Your task to perform on an android device: Clear the cart on amazon.com. Search for dell xps on amazon.com, select the first entry, add it to the cart, then select checkout. Image 0: 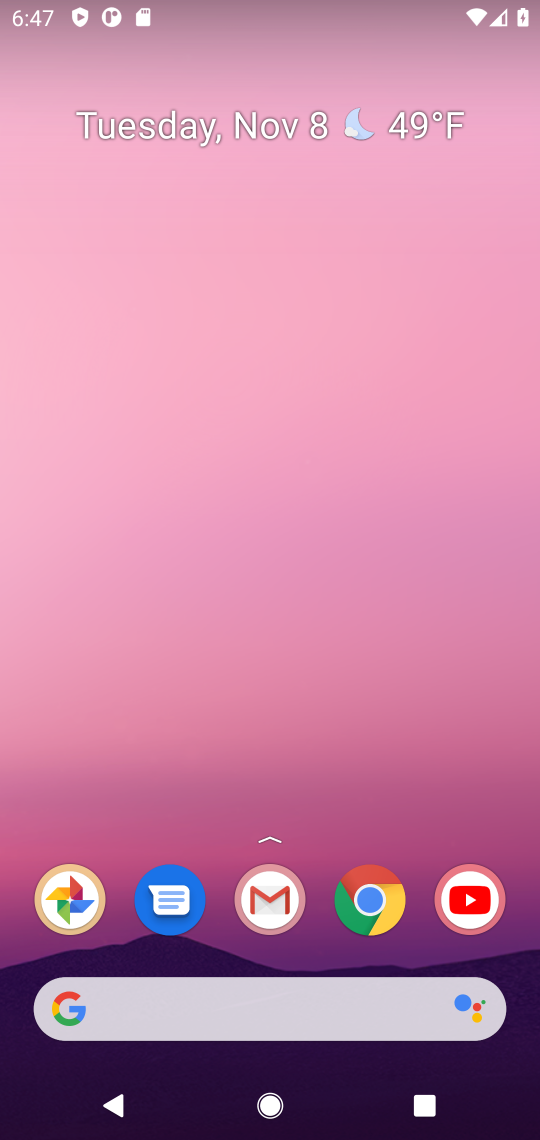
Step 0: drag from (301, 972) to (325, 42)
Your task to perform on an android device: Clear the cart on amazon.com. Search for dell xps on amazon.com, select the first entry, add it to the cart, then select checkout. Image 1: 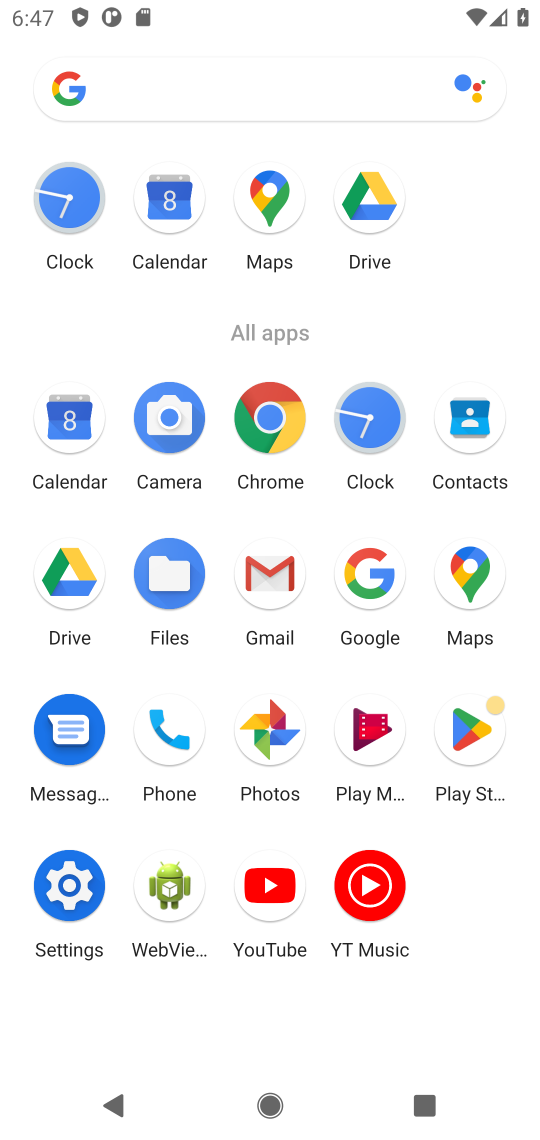
Step 1: click (364, 568)
Your task to perform on an android device: Clear the cart on amazon.com. Search for dell xps on amazon.com, select the first entry, add it to the cart, then select checkout. Image 2: 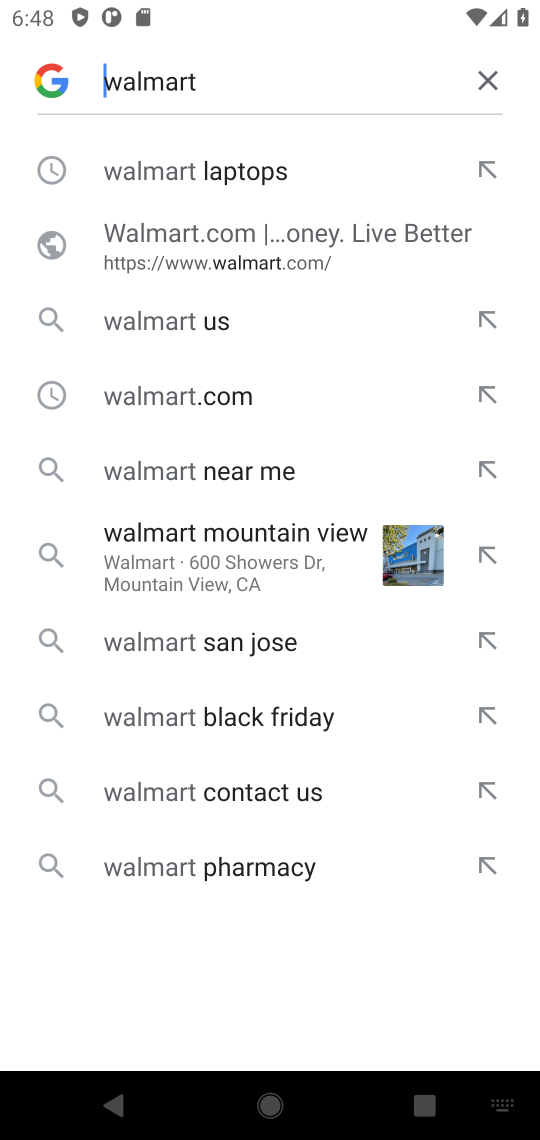
Step 2: click (497, 92)
Your task to perform on an android device: Clear the cart on amazon.com. Search for dell xps on amazon.com, select the first entry, add it to the cart, then select checkout. Image 3: 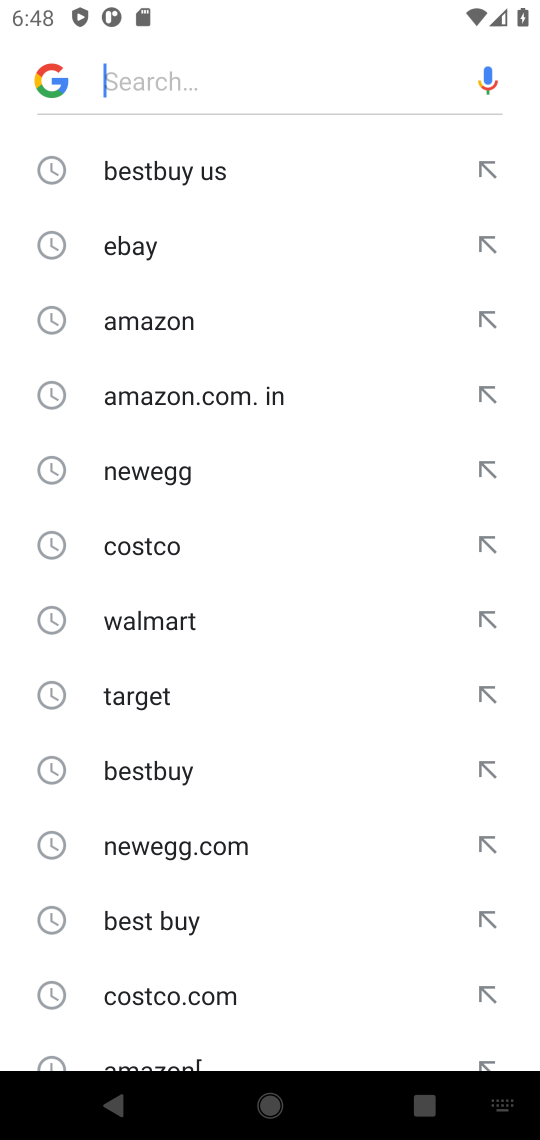
Step 3: click (148, 326)
Your task to perform on an android device: Clear the cart on amazon.com. Search for dell xps on amazon.com, select the first entry, add it to the cart, then select checkout. Image 4: 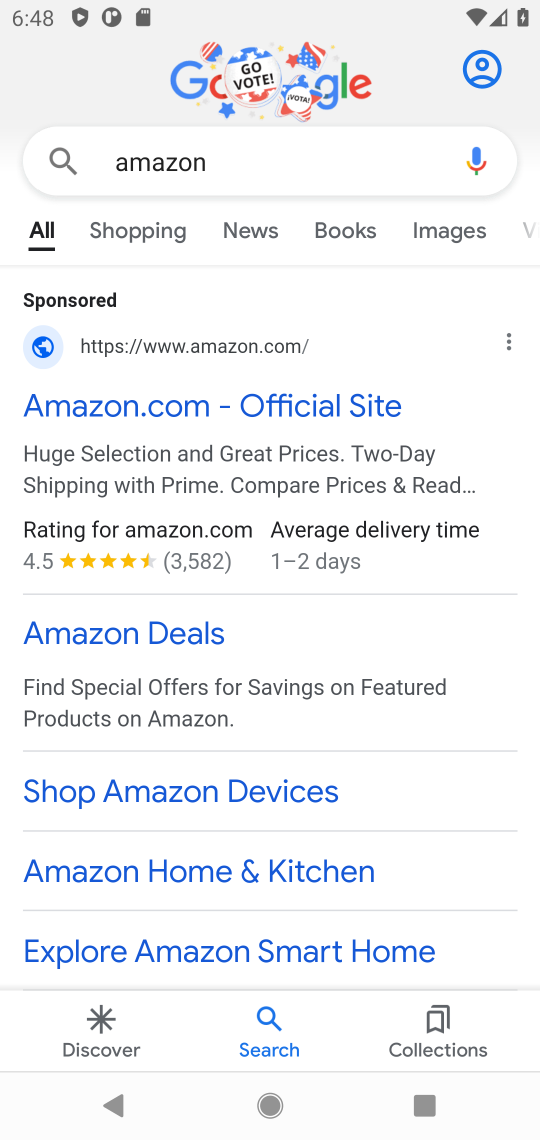
Step 4: drag from (145, 767) to (203, 263)
Your task to perform on an android device: Clear the cart on amazon.com. Search for dell xps on amazon.com, select the first entry, add it to the cart, then select checkout. Image 5: 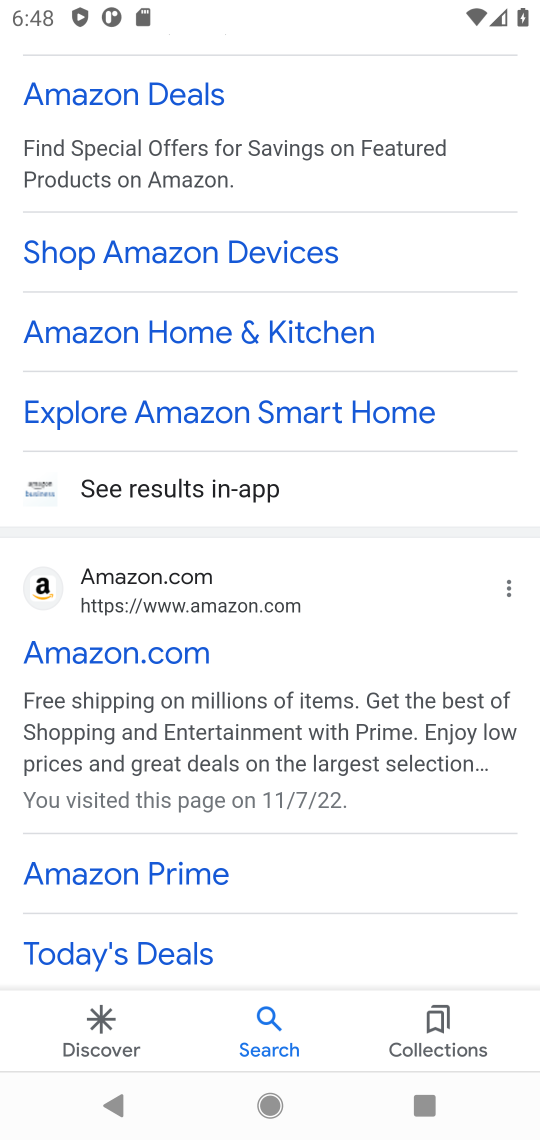
Step 5: drag from (160, 897) to (166, 677)
Your task to perform on an android device: Clear the cart on amazon.com. Search for dell xps on amazon.com, select the first entry, add it to the cart, then select checkout. Image 6: 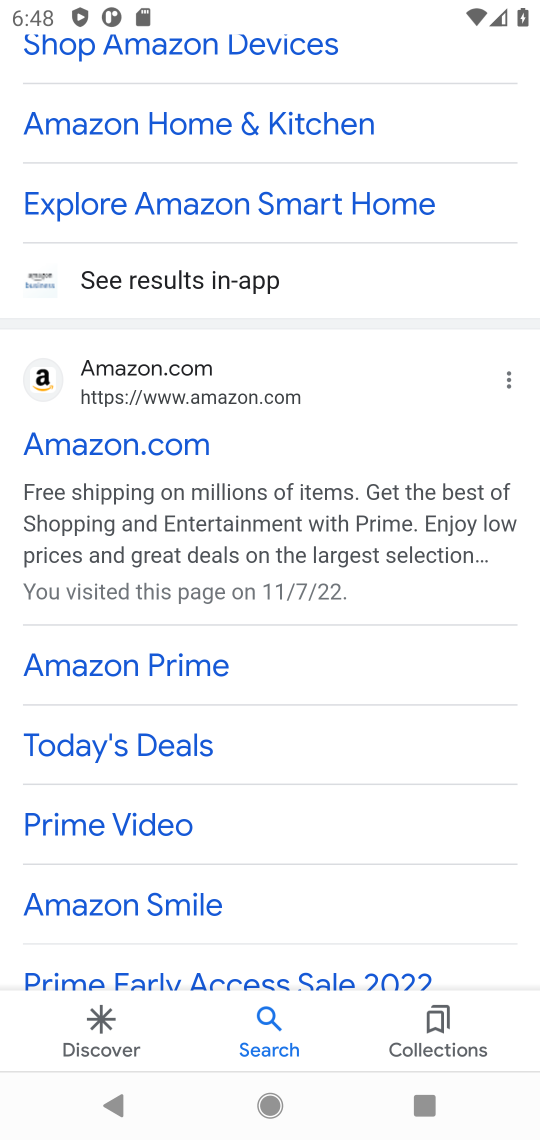
Step 6: click (42, 352)
Your task to perform on an android device: Clear the cart on amazon.com. Search for dell xps on amazon.com, select the first entry, add it to the cart, then select checkout. Image 7: 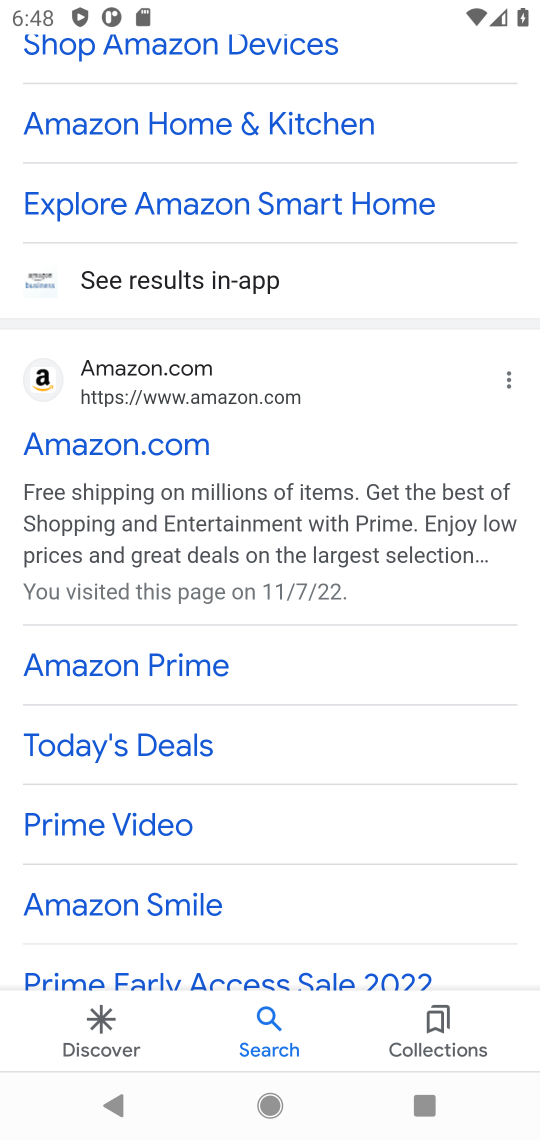
Step 7: click (42, 371)
Your task to perform on an android device: Clear the cart on amazon.com. Search for dell xps on amazon.com, select the first entry, add it to the cart, then select checkout. Image 8: 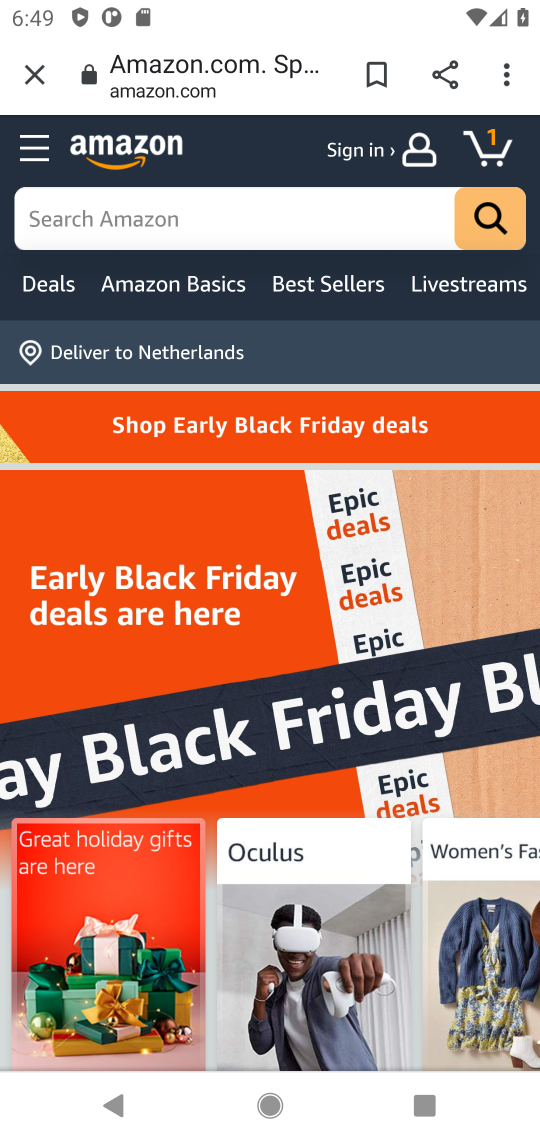
Step 8: click (220, 210)
Your task to perform on an android device: Clear the cart on amazon.com. Search for dell xps on amazon.com, select the first entry, add it to the cart, then select checkout. Image 9: 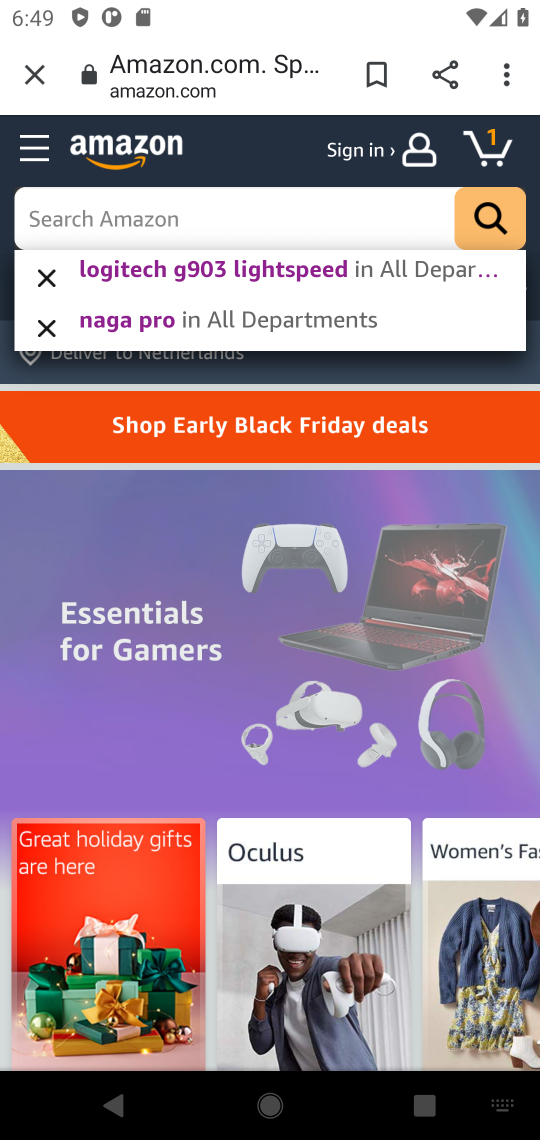
Step 9: click (198, 203)
Your task to perform on an android device: Clear the cart on amazon.com. Search for dell xps on amazon.com, select the first entry, add it to the cart, then select checkout. Image 10: 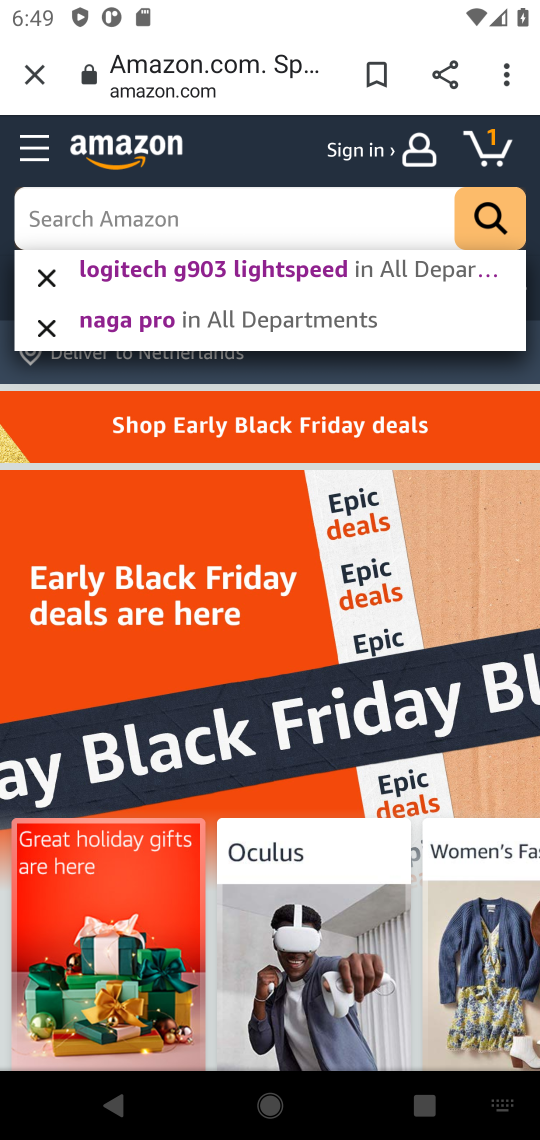
Step 10: type "dell xps "
Your task to perform on an android device: Clear the cart on amazon.com. Search for dell xps on amazon.com, select the first entry, add it to the cart, then select checkout. Image 11: 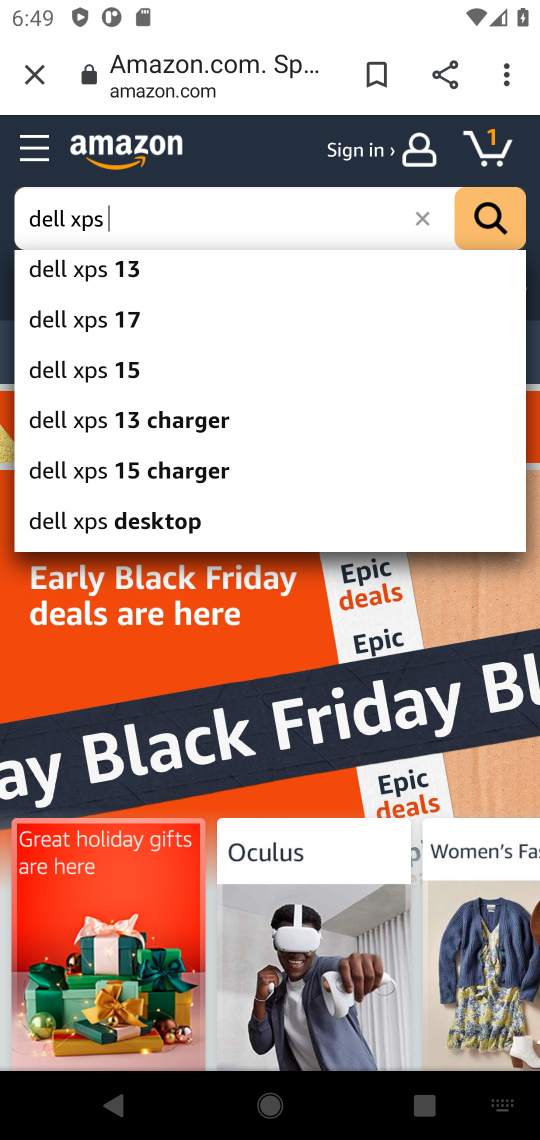
Step 11: click (41, 269)
Your task to perform on an android device: Clear the cart on amazon.com. Search for dell xps on amazon.com, select the first entry, add it to the cart, then select checkout. Image 12: 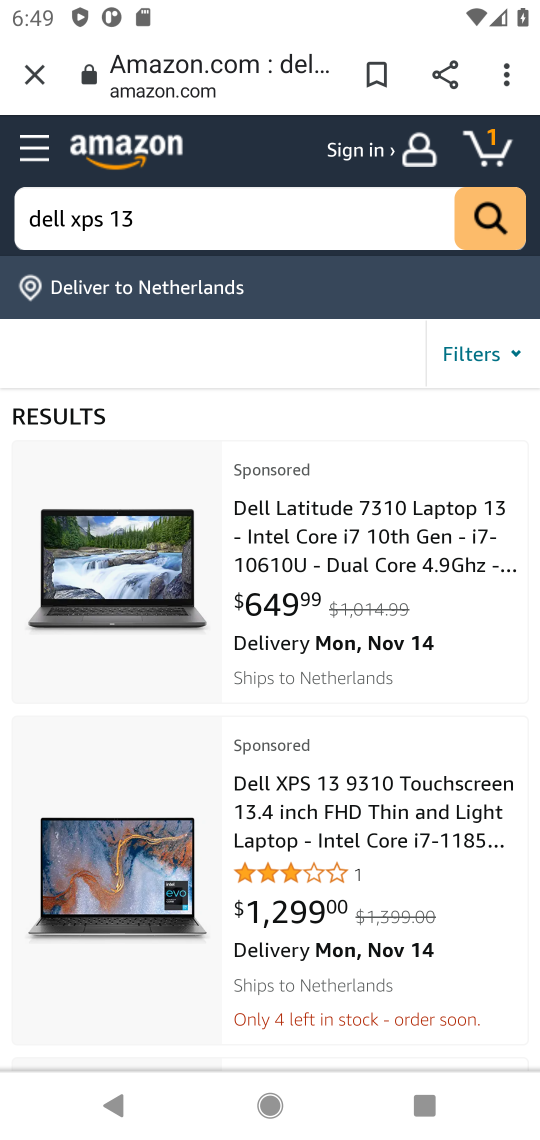
Step 12: click (359, 547)
Your task to perform on an android device: Clear the cart on amazon.com. Search for dell xps on amazon.com, select the first entry, add it to the cart, then select checkout. Image 13: 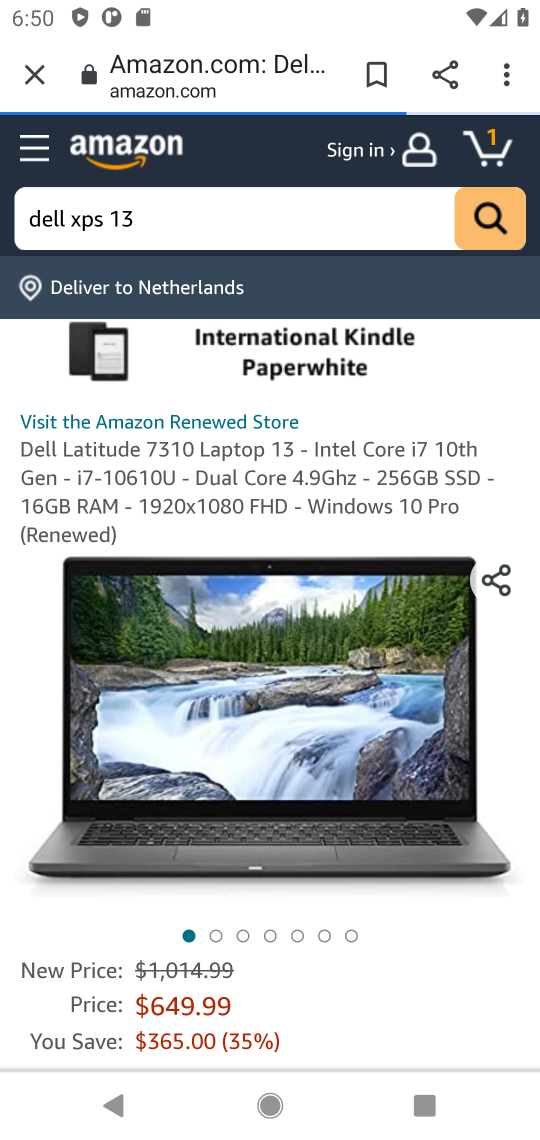
Step 13: press back button
Your task to perform on an android device: Clear the cart on amazon.com. Search for dell xps on amazon.com, select the first entry, add it to the cart, then select checkout. Image 14: 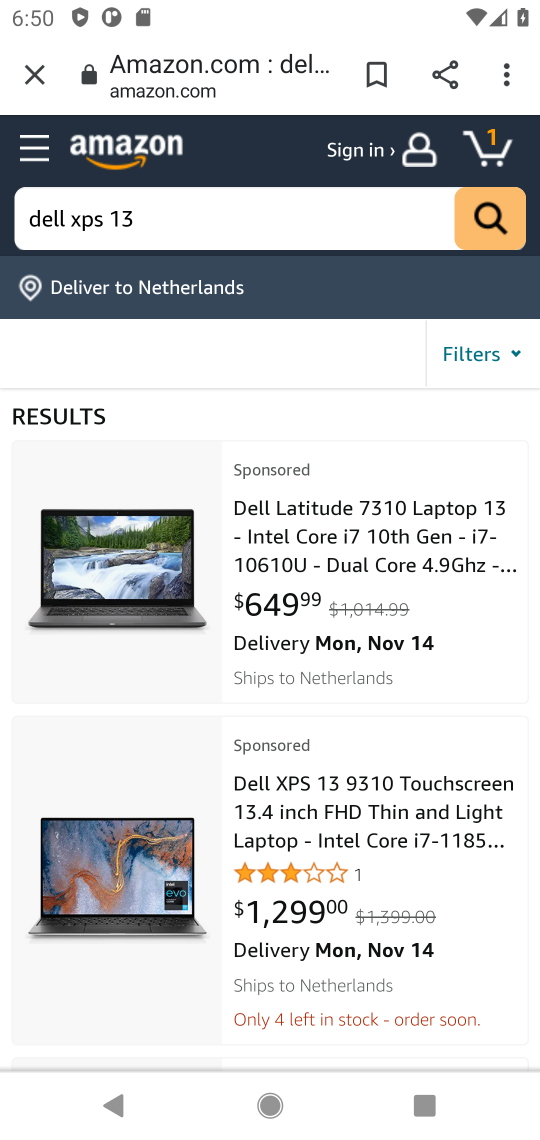
Step 14: click (282, 867)
Your task to perform on an android device: Clear the cart on amazon.com. Search for dell xps on amazon.com, select the first entry, add it to the cart, then select checkout. Image 15: 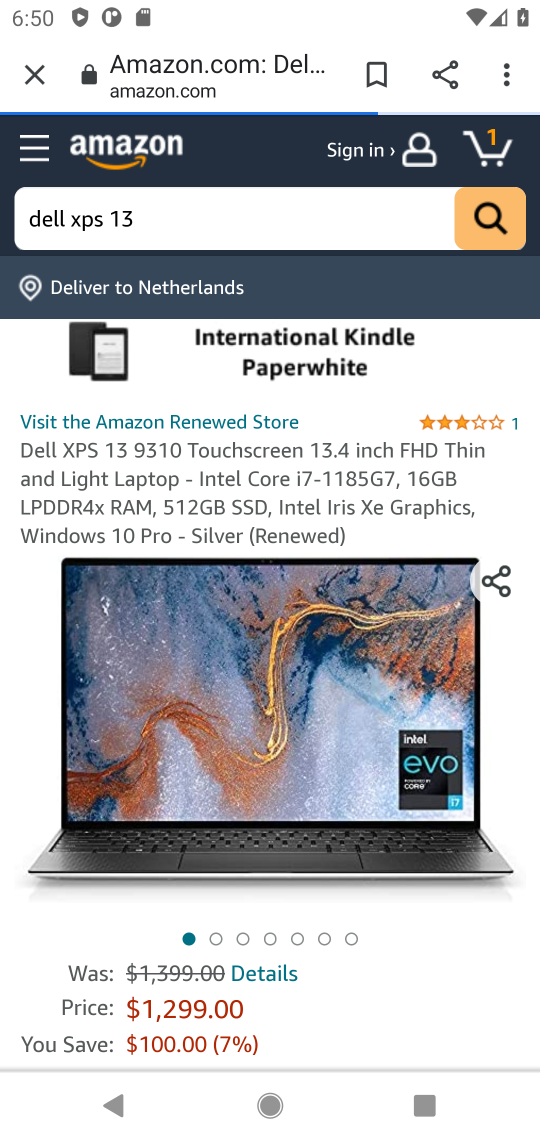
Step 15: drag from (315, 985) to (379, 282)
Your task to perform on an android device: Clear the cart on amazon.com. Search for dell xps on amazon.com, select the first entry, add it to the cart, then select checkout. Image 16: 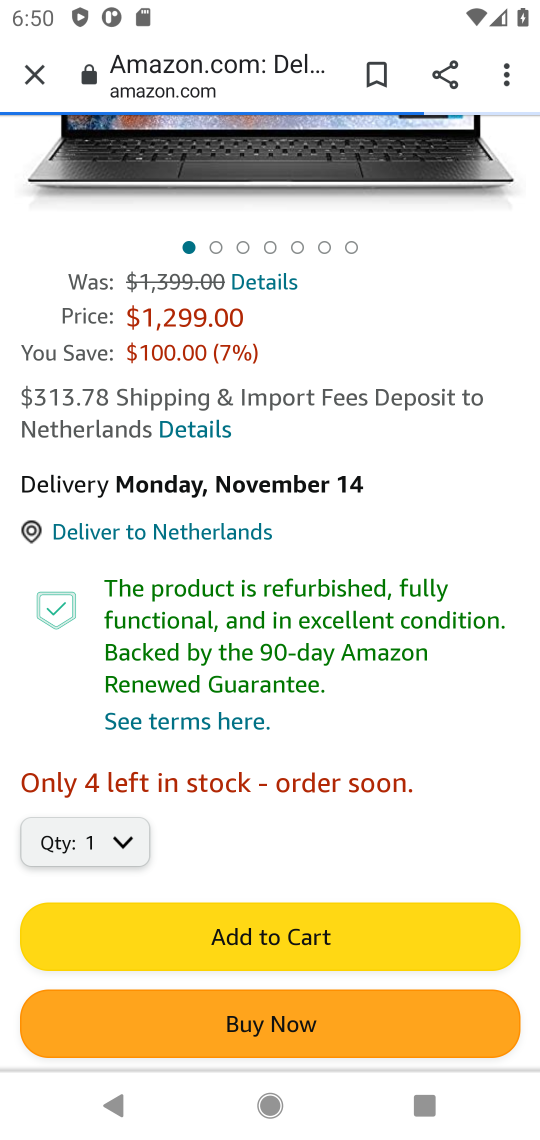
Step 16: drag from (293, 903) to (329, 510)
Your task to perform on an android device: Clear the cart on amazon.com. Search for dell xps on amazon.com, select the first entry, add it to the cart, then select checkout. Image 17: 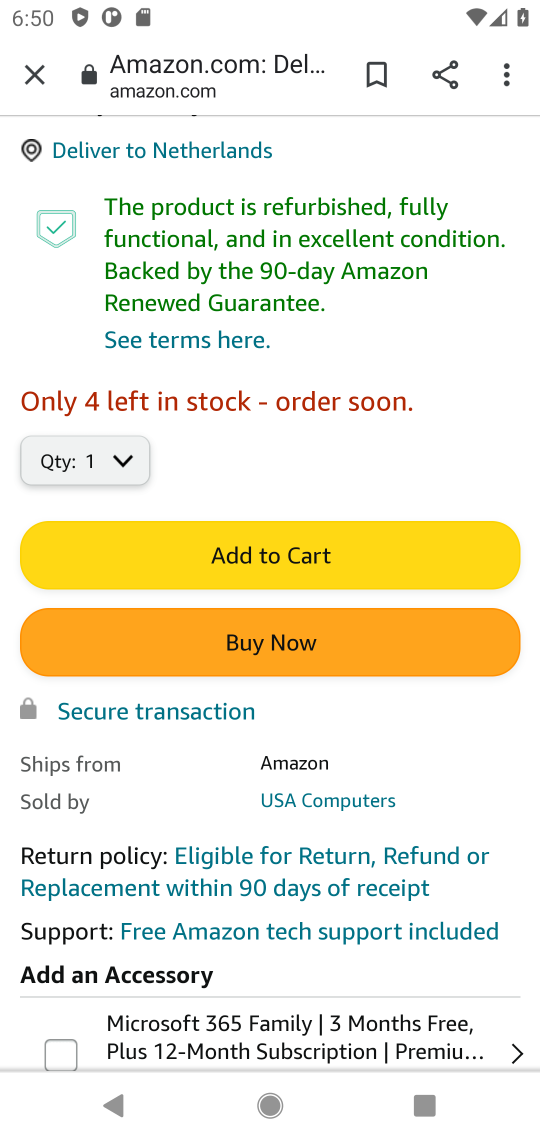
Step 17: click (319, 542)
Your task to perform on an android device: Clear the cart on amazon.com. Search for dell xps on amazon.com, select the first entry, add it to the cart, then select checkout. Image 18: 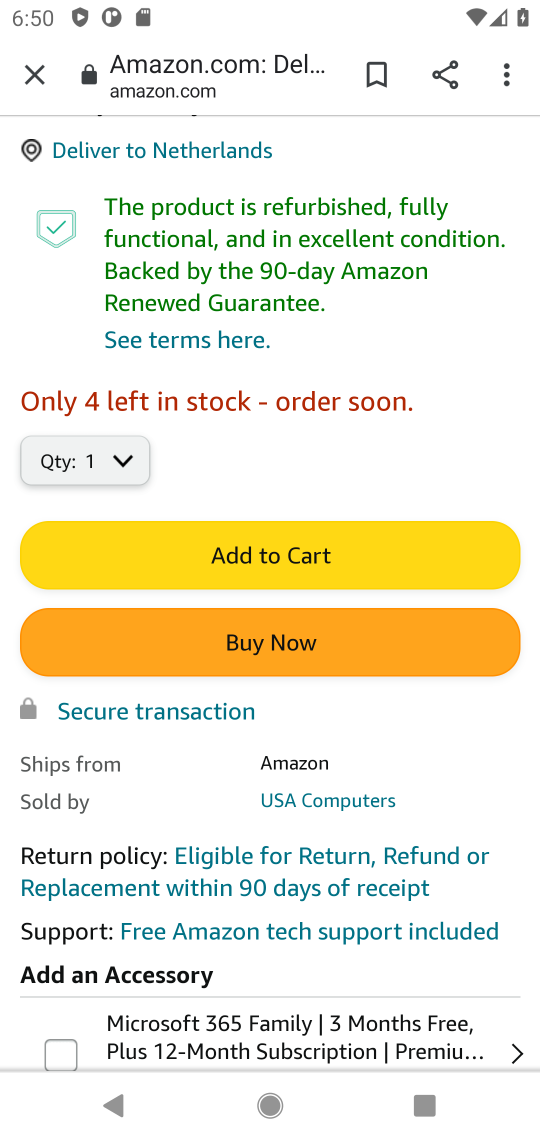
Step 18: task complete